Your task to perform on an android device: turn pop-ups off in chrome Image 0: 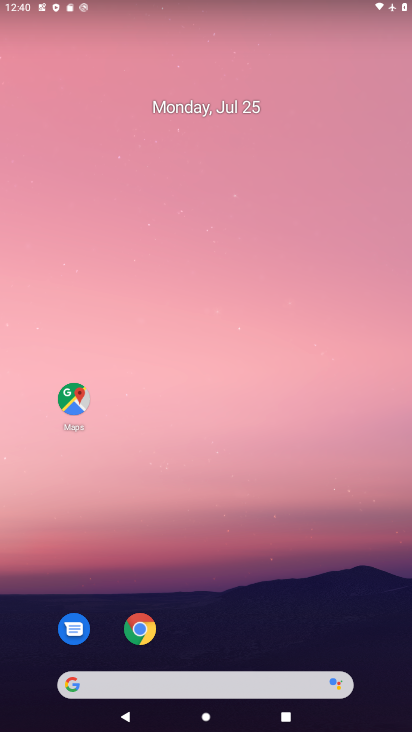
Step 0: click (117, 636)
Your task to perform on an android device: turn pop-ups off in chrome Image 1: 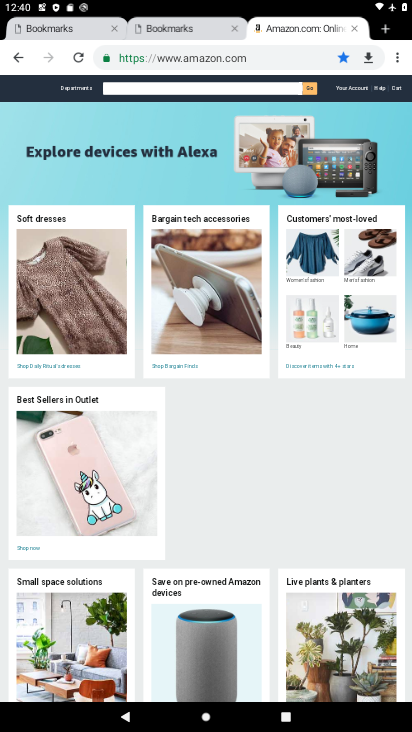
Step 1: task complete